Your task to perform on an android device: Play the last video I watched on Youtube Image 0: 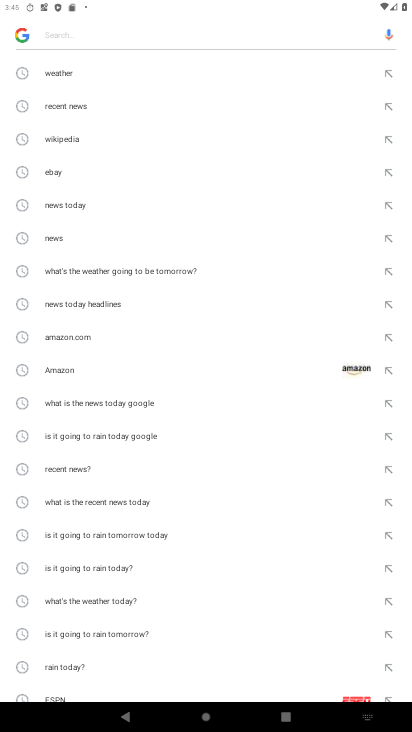
Step 0: press home button
Your task to perform on an android device: Play the last video I watched on Youtube Image 1: 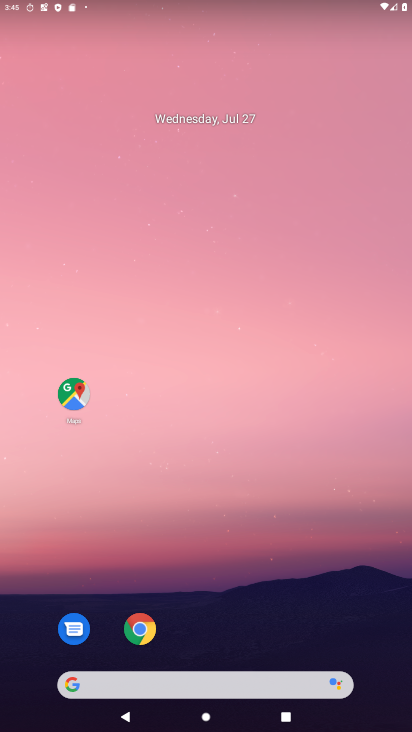
Step 1: drag from (285, 542) to (294, 71)
Your task to perform on an android device: Play the last video I watched on Youtube Image 2: 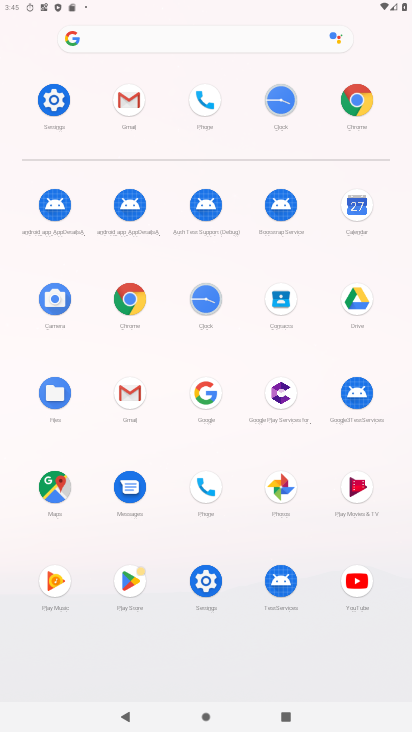
Step 2: click (364, 578)
Your task to perform on an android device: Play the last video I watched on Youtube Image 3: 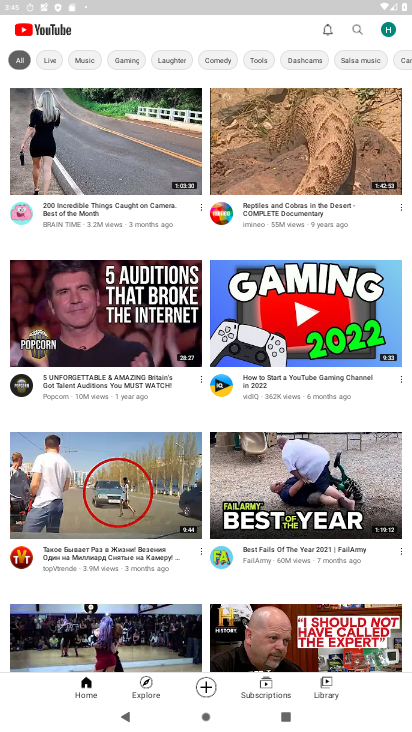
Step 3: click (325, 691)
Your task to perform on an android device: Play the last video I watched on Youtube Image 4: 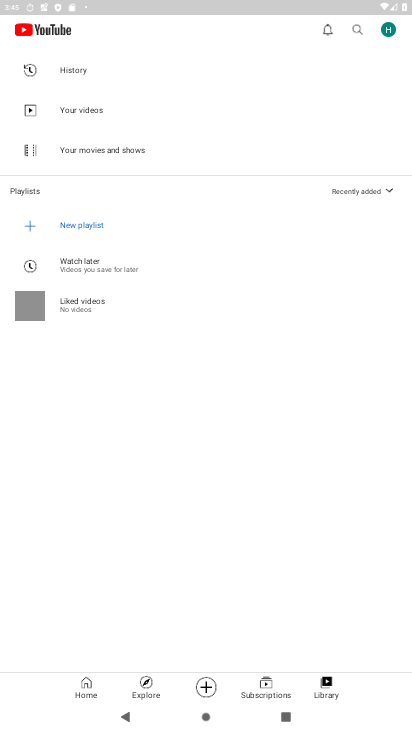
Step 4: click (76, 76)
Your task to perform on an android device: Play the last video I watched on Youtube Image 5: 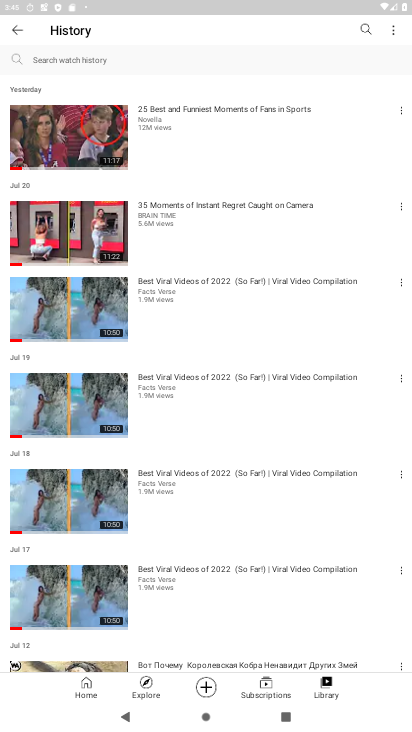
Step 5: click (87, 135)
Your task to perform on an android device: Play the last video I watched on Youtube Image 6: 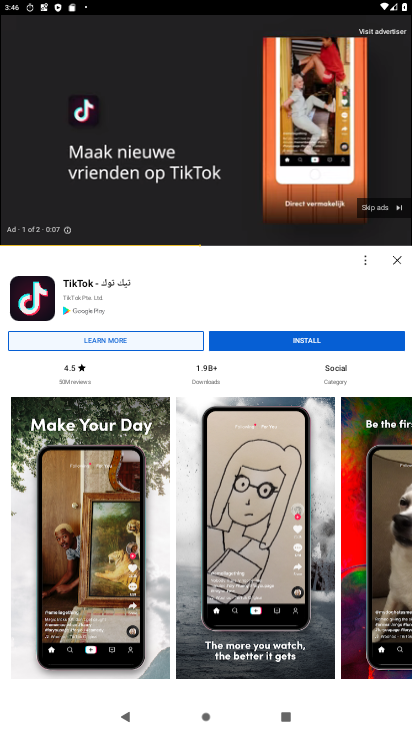
Step 6: click (384, 209)
Your task to perform on an android device: Play the last video I watched on Youtube Image 7: 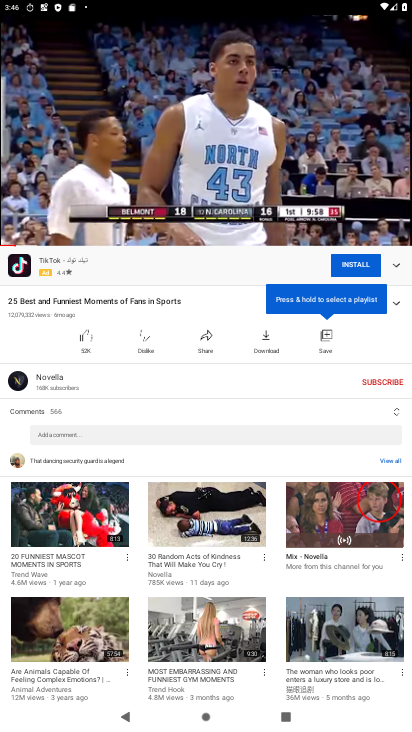
Step 7: task complete